Your task to perform on an android device: Open calendar and show me the fourth week of next month Image 0: 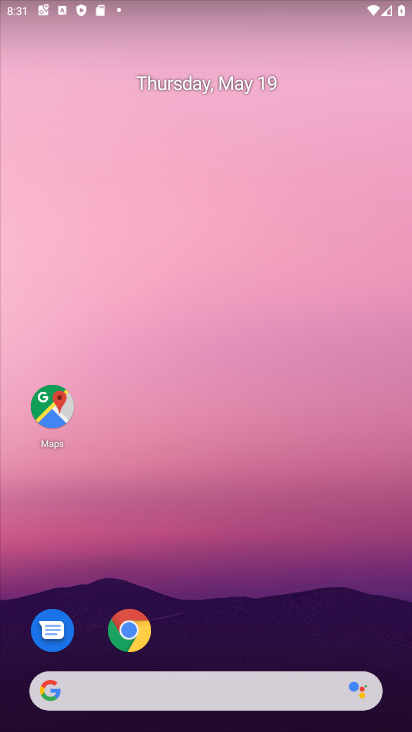
Step 0: drag from (389, 650) to (338, 195)
Your task to perform on an android device: Open calendar and show me the fourth week of next month Image 1: 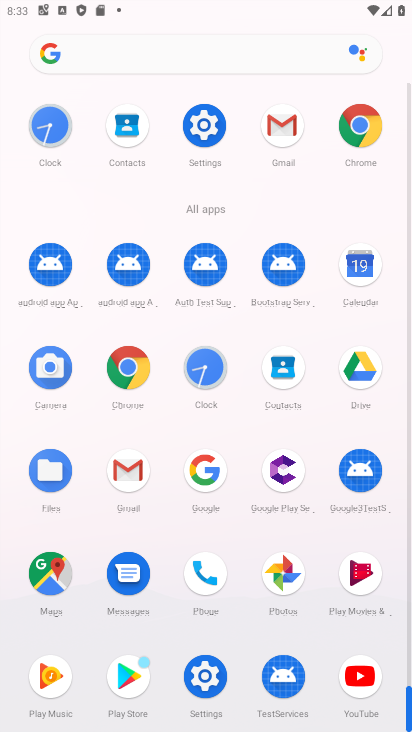
Step 1: click (358, 257)
Your task to perform on an android device: Open calendar and show me the fourth week of next month Image 2: 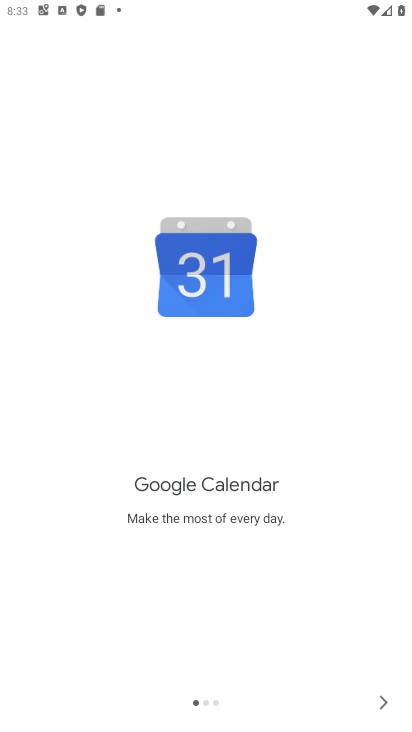
Step 2: click (375, 698)
Your task to perform on an android device: Open calendar and show me the fourth week of next month Image 3: 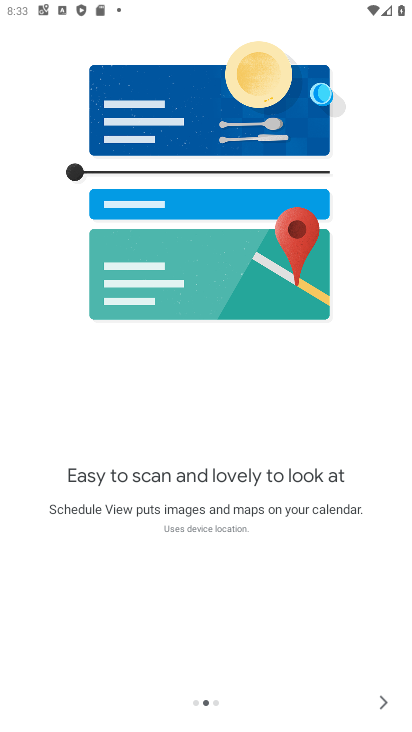
Step 3: click (375, 698)
Your task to perform on an android device: Open calendar and show me the fourth week of next month Image 4: 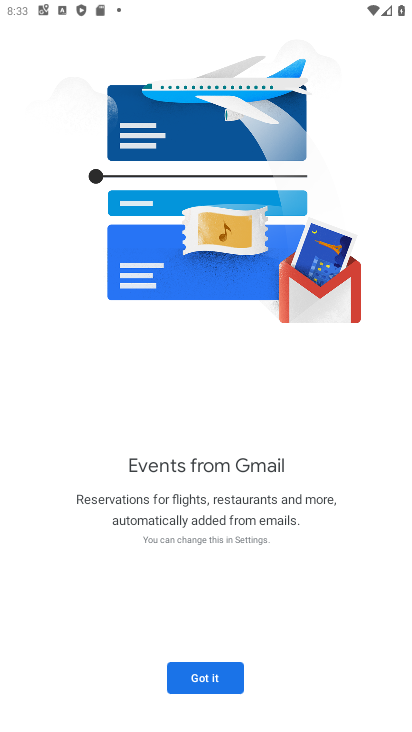
Step 4: click (202, 672)
Your task to perform on an android device: Open calendar and show me the fourth week of next month Image 5: 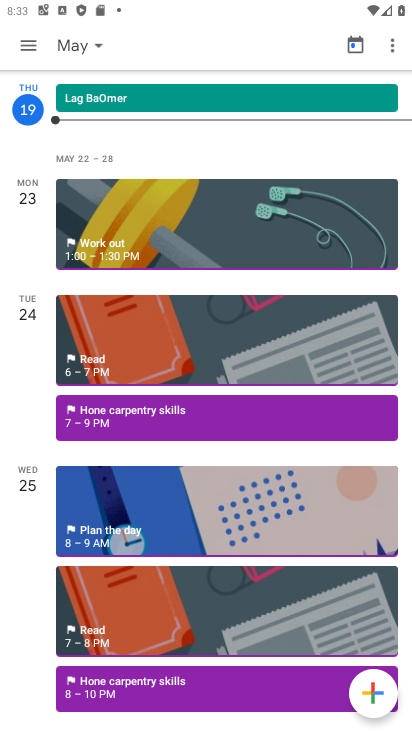
Step 5: click (27, 41)
Your task to perform on an android device: Open calendar and show me the fourth week of next month Image 6: 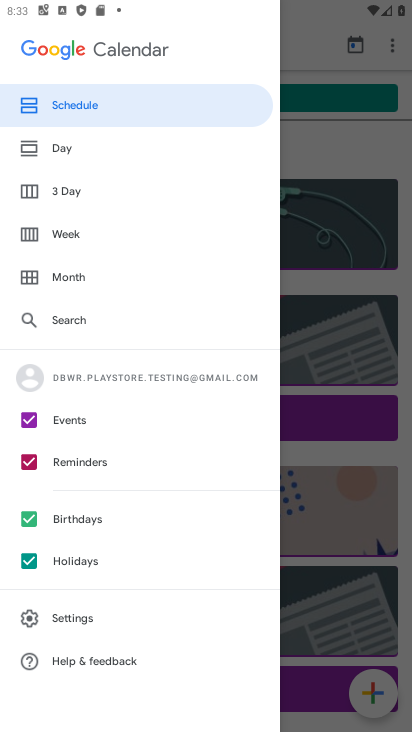
Step 6: click (54, 237)
Your task to perform on an android device: Open calendar and show me the fourth week of next month Image 7: 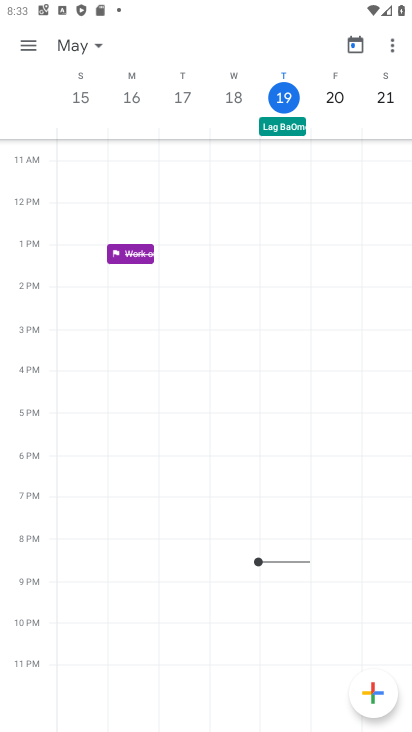
Step 7: click (93, 44)
Your task to perform on an android device: Open calendar and show me the fourth week of next month Image 8: 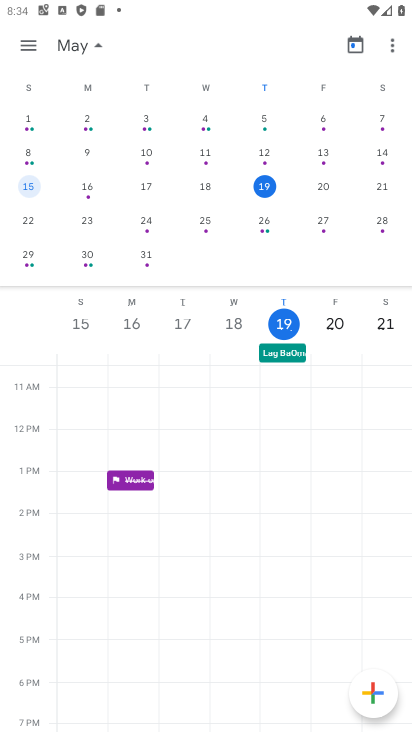
Step 8: drag from (374, 182) to (45, 137)
Your task to perform on an android device: Open calendar and show me the fourth week of next month Image 9: 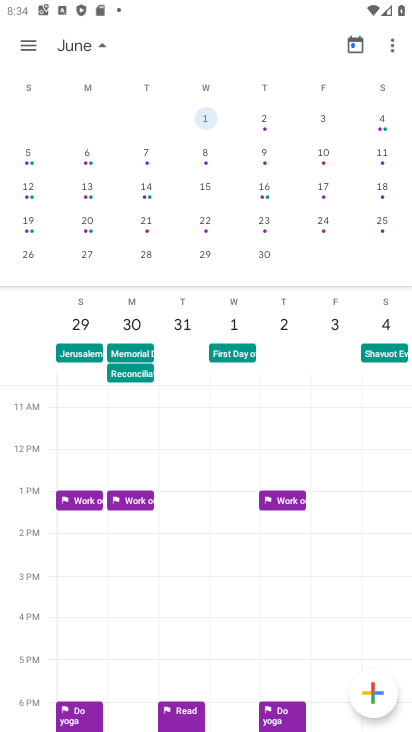
Step 9: click (29, 223)
Your task to perform on an android device: Open calendar and show me the fourth week of next month Image 10: 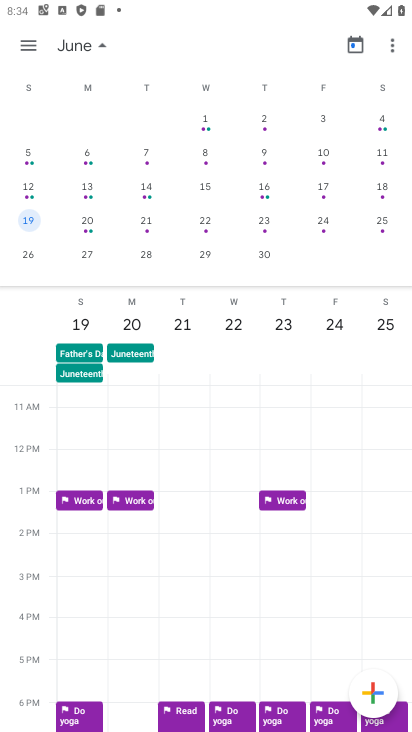
Step 10: task complete